Your task to perform on an android device: change keyboard looks Image 0: 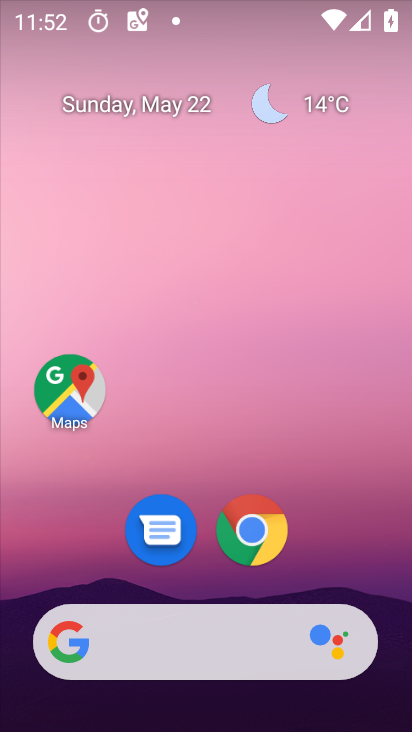
Step 0: drag from (384, 712) to (368, 125)
Your task to perform on an android device: change keyboard looks Image 1: 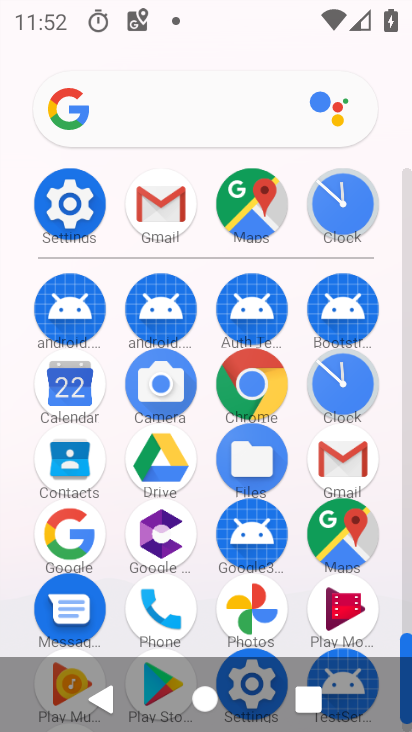
Step 1: click (61, 198)
Your task to perform on an android device: change keyboard looks Image 2: 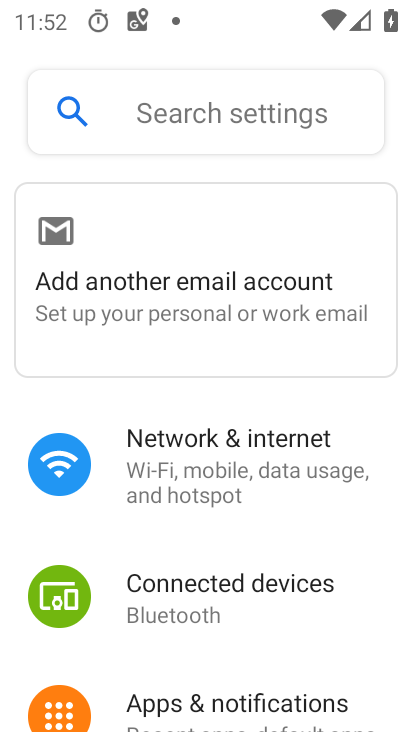
Step 2: drag from (364, 663) to (315, 241)
Your task to perform on an android device: change keyboard looks Image 3: 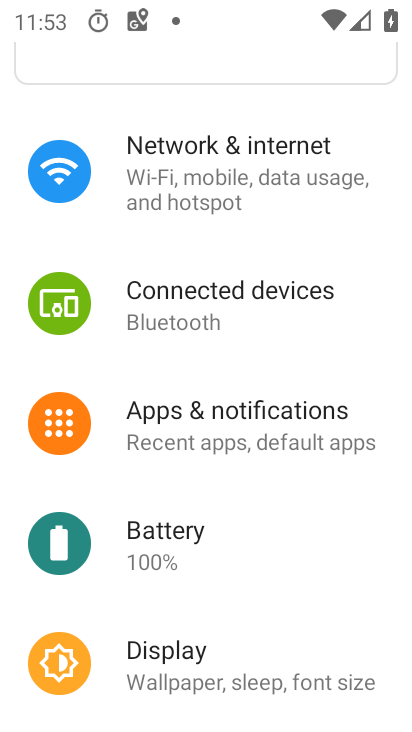
Step 3: drag from (350, 615) to (342, 325)
Your task to perform on an android device: change keyboard looks Image 4: 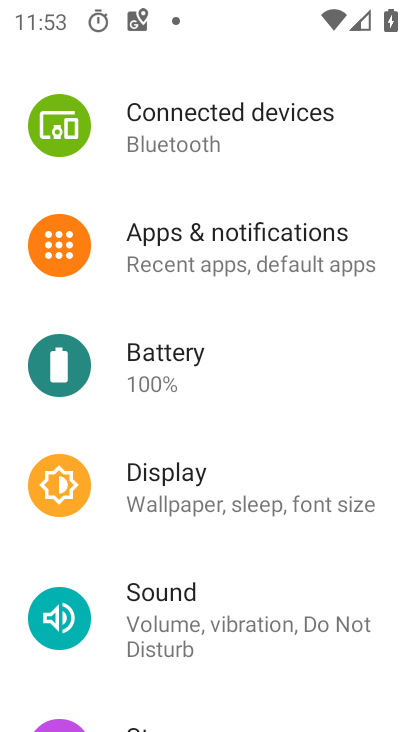
Step 4: drag from (343, 686) to (314, 305)
Your task to perform on an android device: change keyboard looks Image 5: 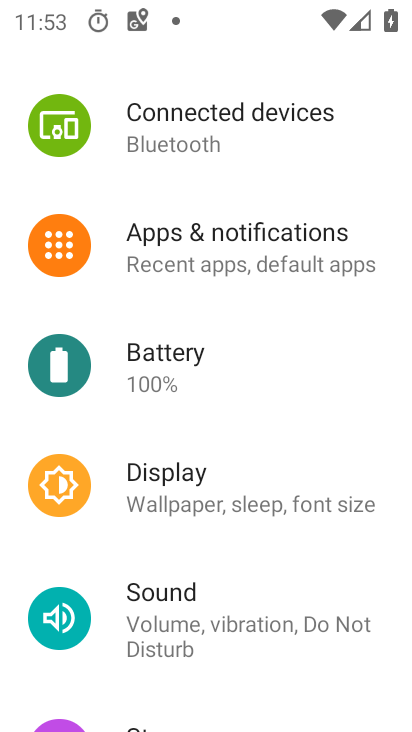
Step 5: drag from (314, 634) to (333, 159)
Your task to perform on an android device: change keyboard looks Image 6: 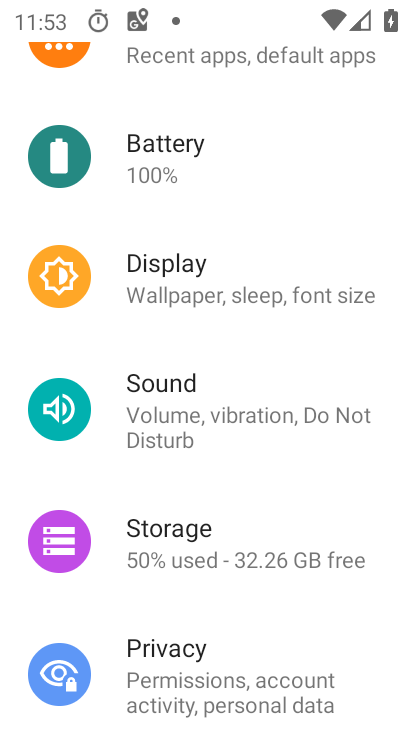
Step 6: drag from (344, 688) to (320, 345)
Your task to perform on an android device: change keyboard looks Image 7: 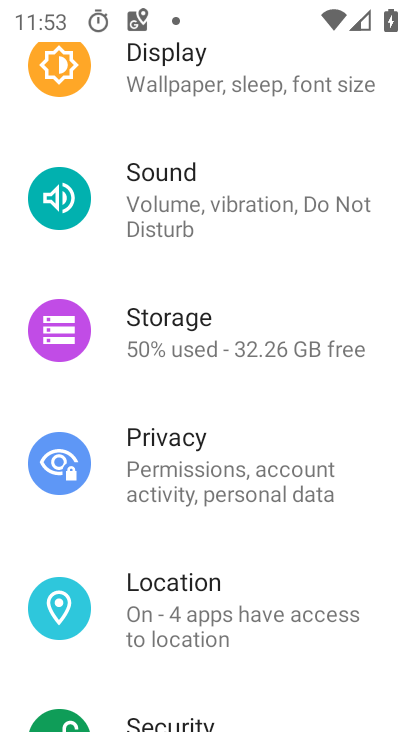
Step 7: drag from (362, 662) to (381, 280)
Your task to perform on an android device: change keyboard looks Image 8: 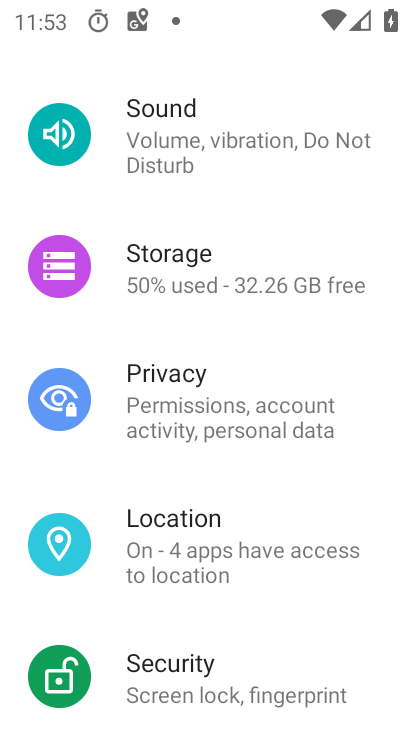
Step 8: drag from (316, 667) to (318, 256)
Your task to perform on an android device: change keyboard looks Image 9: 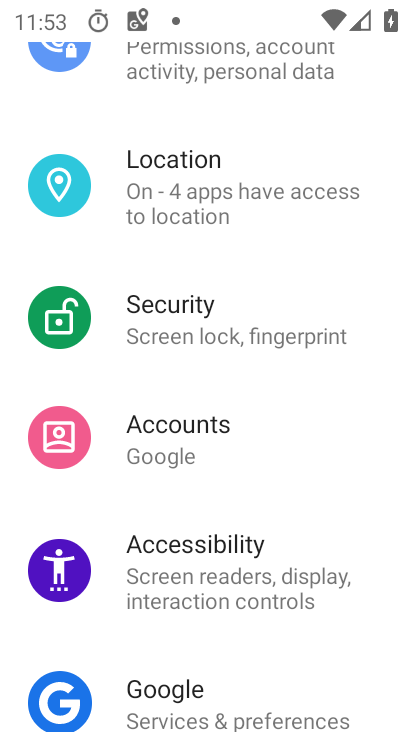
Step 9: drag from (360, 690) to (386, 313)
Your task to perform on an android device: change keyboard looks Image 10: 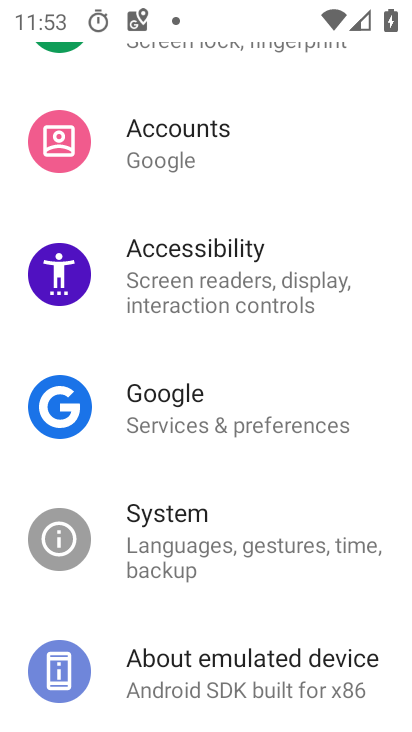
Step 10: drag from (383, 586) to (366, 342)
Your task to perform on an android device: change keyboard looks Image 11: 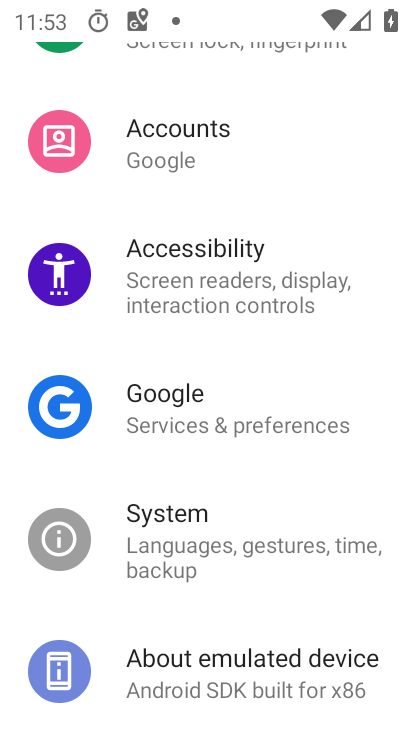
Step 11: drag from (347, 623) to (323, 257)
Your task to perform on an android device: change keyboard looks Image 12: 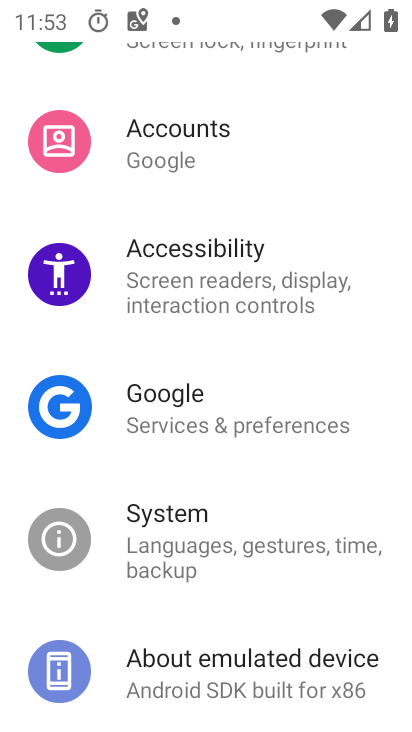
Step 12: click (217, 663)
Your task to perform on an android device: change keyboard looks Image 13: 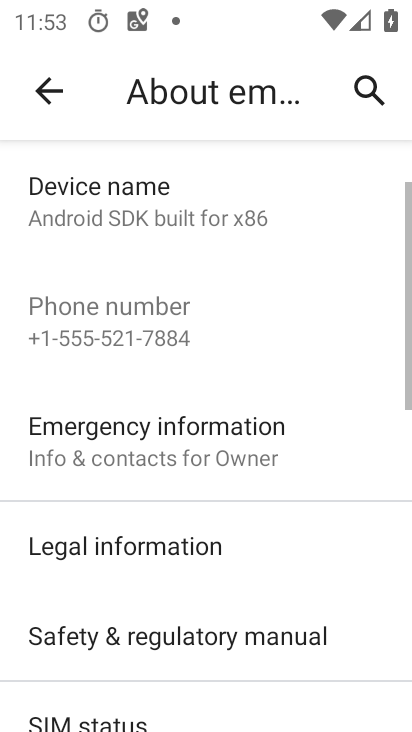
Step 13: drag from (352, 708) to (328, 279)
Your task to perform on an android device: change keyboard looks Image 14: 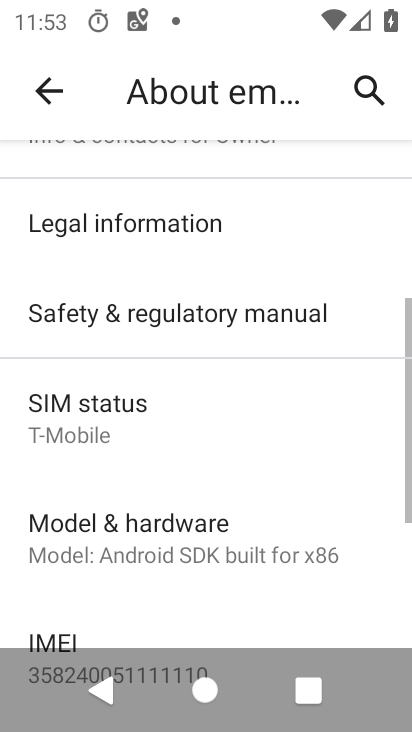
Step 14: drag from (275, 605) to (289, 289)
Your task to perform on an android device: change keyboard looks Image 15: 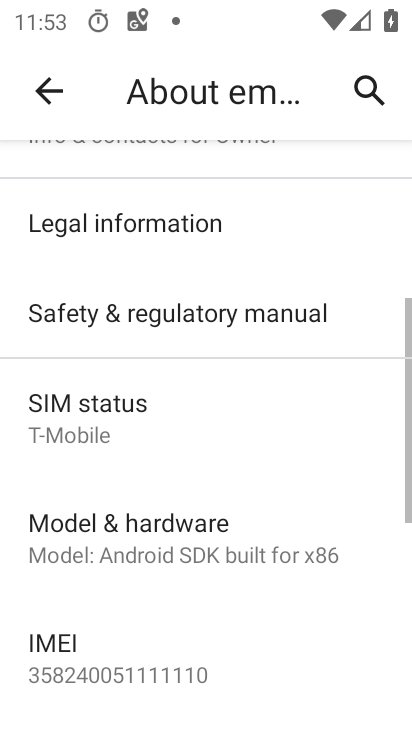
Step 15: drag from (278, 638) to (289, 315)
Your task to perform on an android device: change keyboard looks Image 16: 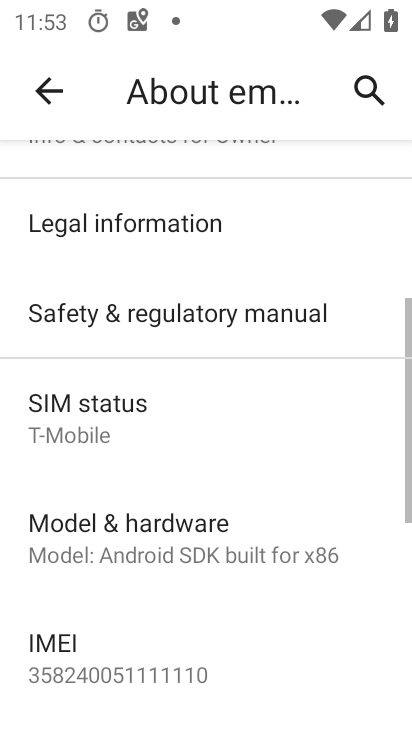
Step 16: drag from (243, 224) to (241, 572)
Your task to perform on an android device: change keyboard looks Image 17: 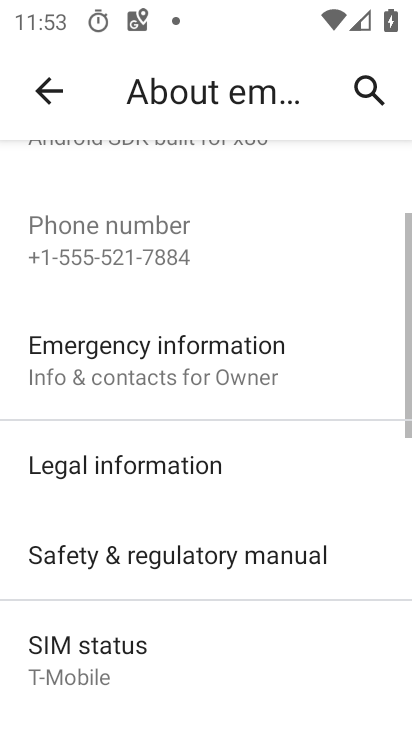
Step 17: drag from (351, 277) to (348, 578)
Your task to perform on an android device: change keyboard looks Image 18: 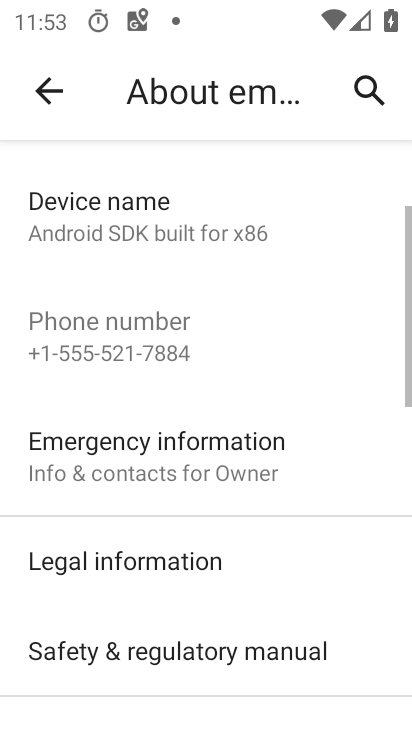
Step 18: click (54, 89)
Your task to perform on an android device: change keyboard looks Image 19: 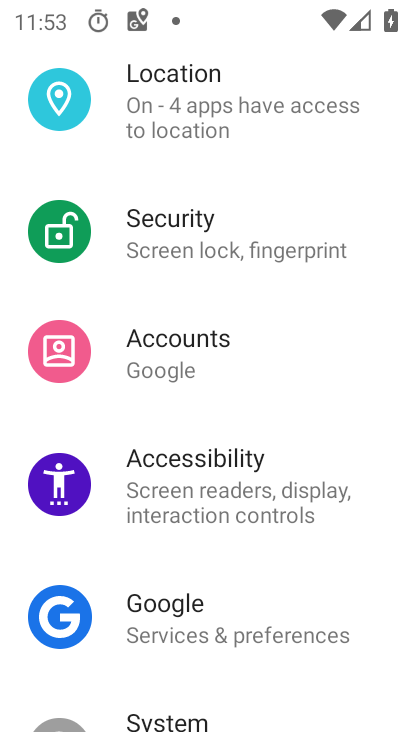
Step 19: drag from (305, 698) to (342, 293)
Your task to perform on an android device: change keyboard looks Image 20: 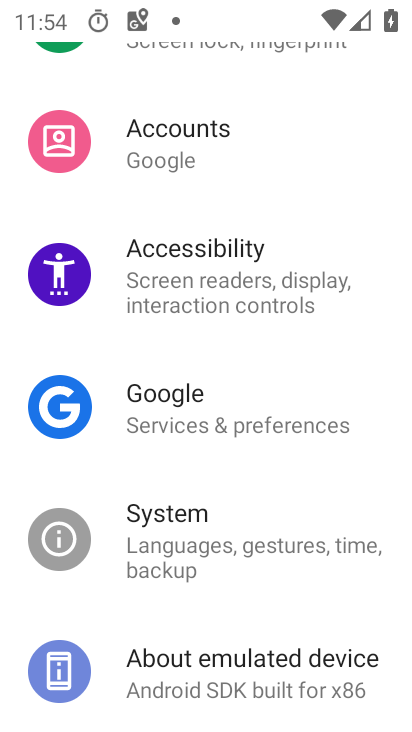
Step 20: click (150, 556)
Your task to perform on an android device: change keyboard looks Image 21: 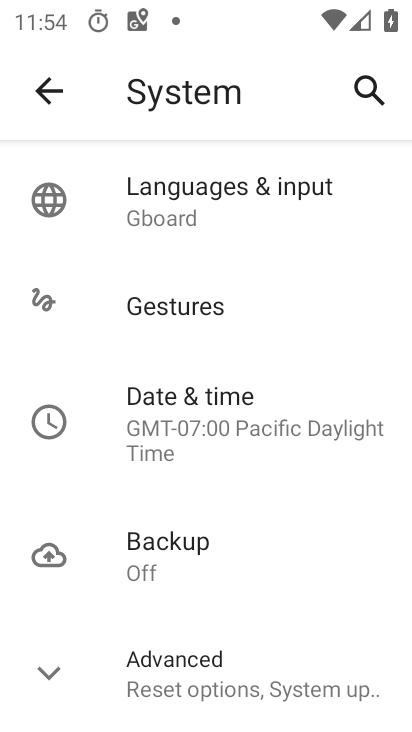
Step 21: click (156, 191)
Your task to perform on an android device: change keyboard looks Image 22: 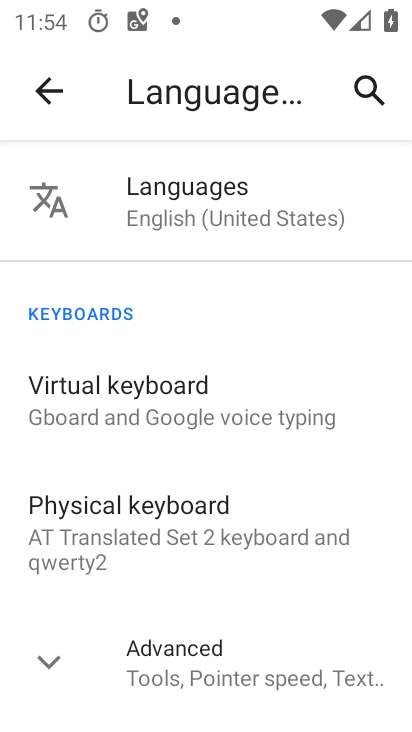
Step 22: click (98, 396)
Your task to perform on an android device: change keyboard looks Image 23: 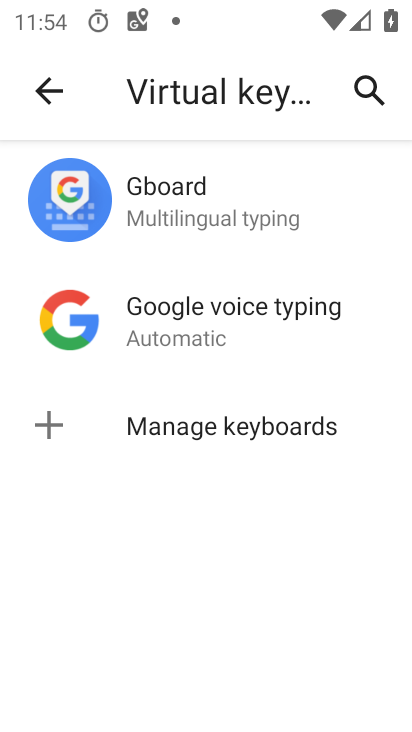
Step 23: click (197, 178)
Your task to perform on an android device: change keyboard looks Image 24: 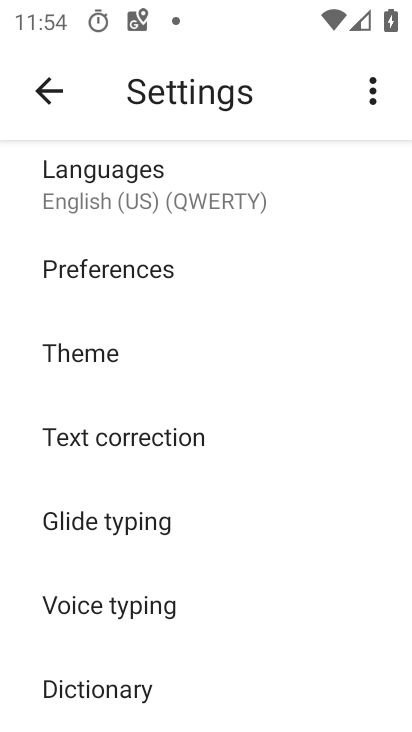
Step 24: click (104, 358)
Your task to perform on an android device: change keyboard looks Image 25: 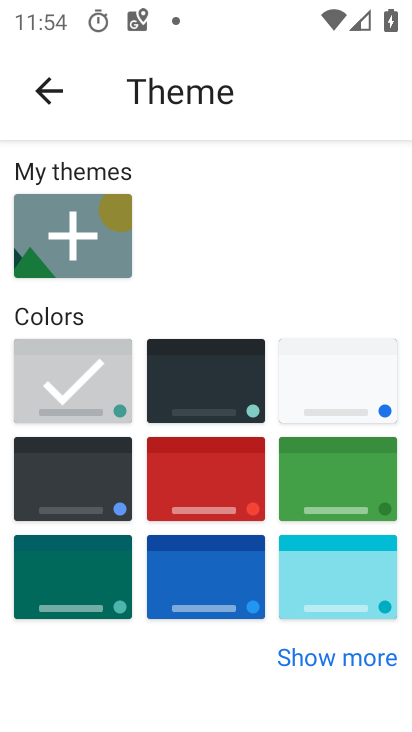
Step 25: click (324, 495)
Your task to perform on an android device: change keyboard looks Image 26: 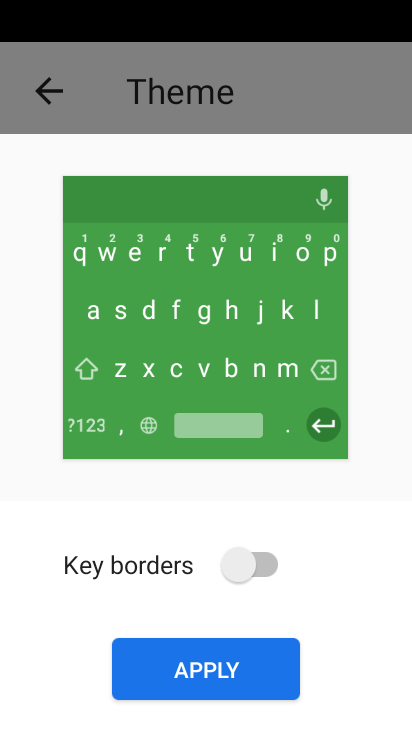
Step 26: click (253, 567)
Your task to perform on an android device: change keyboard looks Image 27: 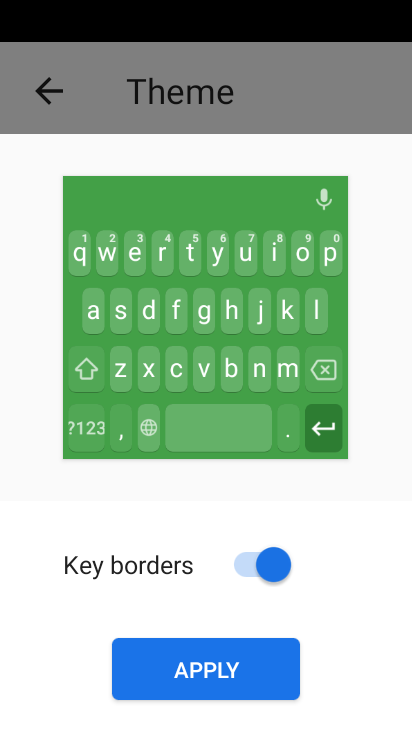
Step 27: click (226, 669)
Your task to perform on an android device: change keyboard looks Image 28: 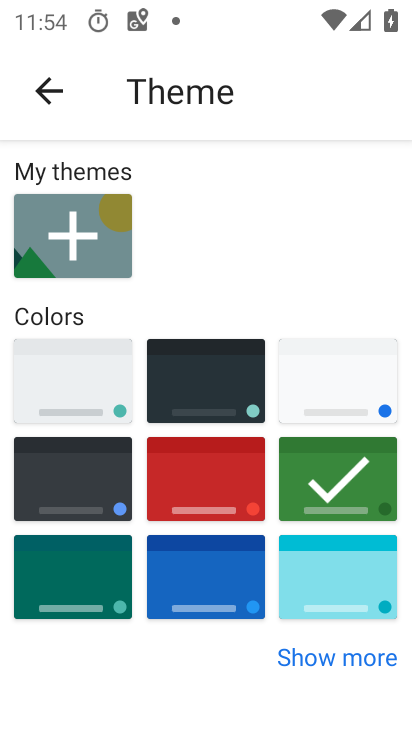
Step 28: task complete